Your task to perform on an android device: turn off wifi Image 0: 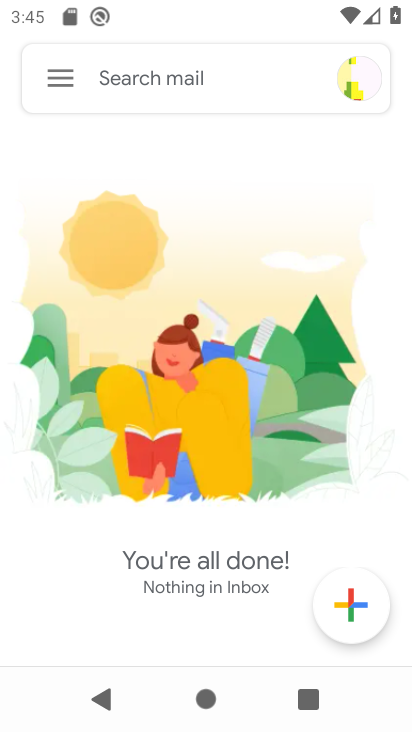
Step 0: press home button
Your task to perform on an android device: turn off wifi Image 1: 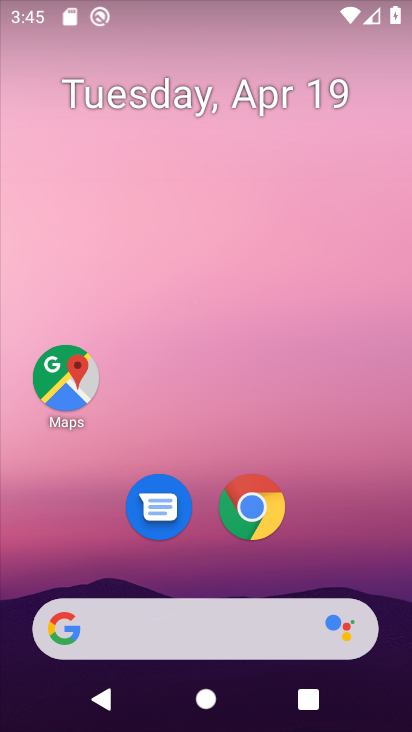
Step 1: drag from (309, 535) to (344, 93)
Your task to perform on an android device: turn off wifi Image 2: 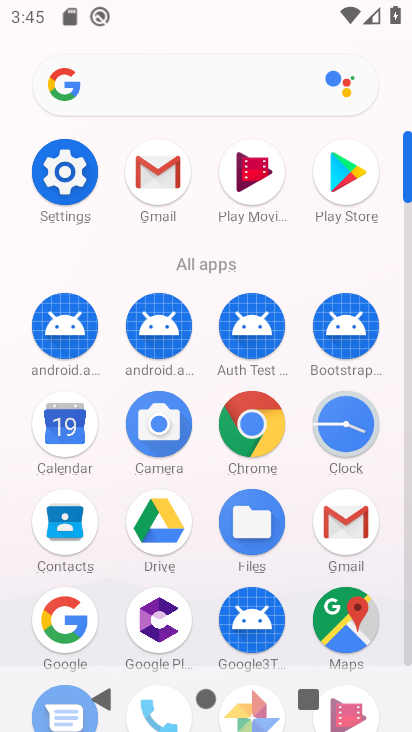
Step 2: click (80, 176)
Your task to perform on an android device: turn off wifi Image 3: 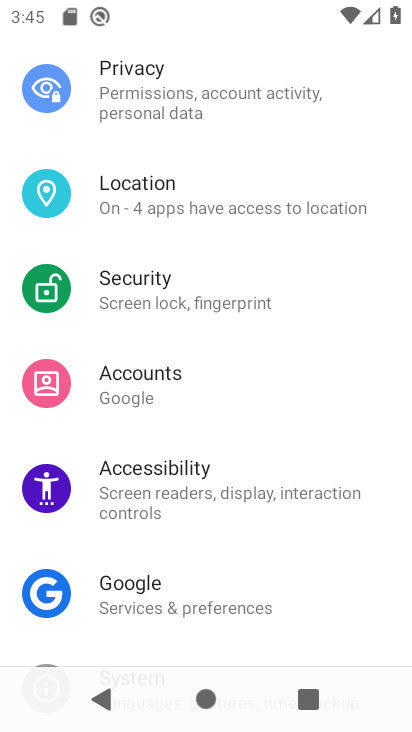
Step 3: drag from (159, 258) to (175, 341)
Your task to perform on an android device: turn off wifi Image 4: 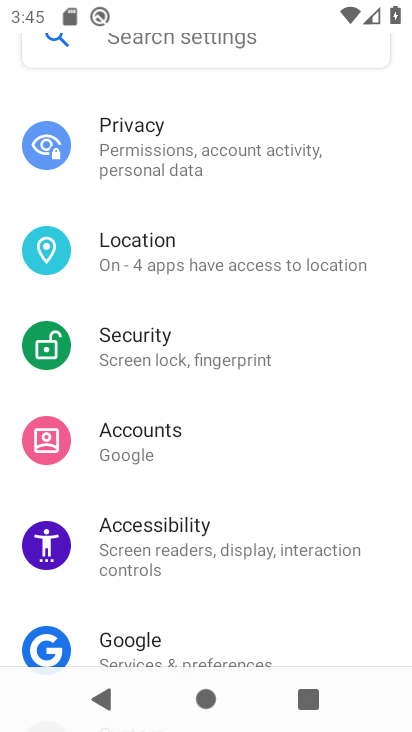
Step 4: drag from (169, 270) to (183, 345)
Your task to perform on an android device: turn off wifi Image 5: 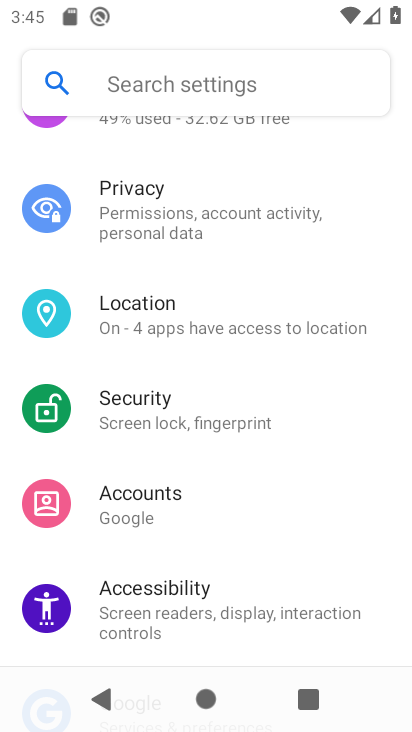
Step 5: drag from (178, 272) to (201, 350)
Your task to perform on an android device: turn off wifi Image 6: 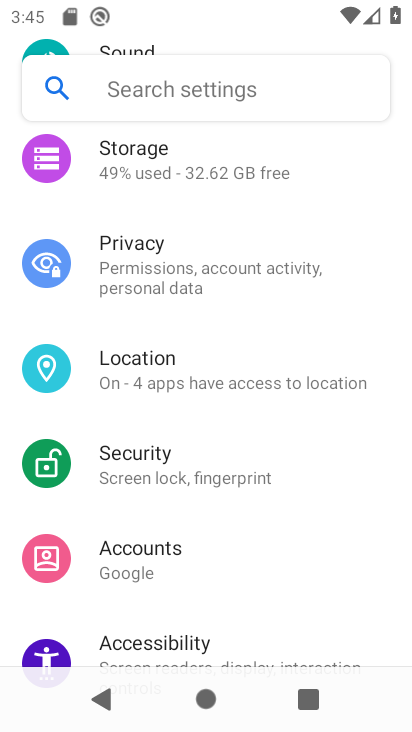
Step 6: drag from (196, 275) to (211, 341)
Your task to perform on an android device: turn off wifi Image 7: 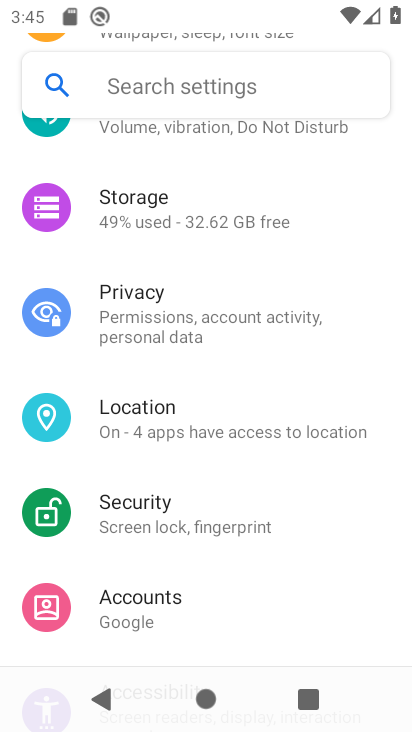
Step 7: drag from (221, 273) to (232, 344)
Your task to perform on an android device: turn off wifi Image 8: 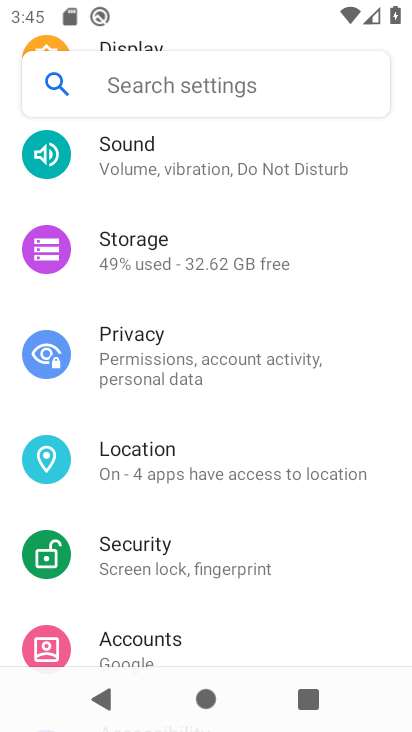
Step 8: drag from (252, 228) to (248, 298)
Your task to perform on an android device: turn off wifi Image 9: 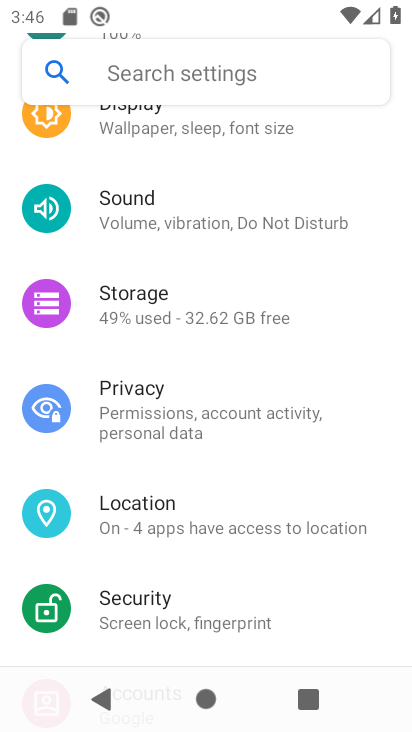
Step 9: drag from (249, 233) to (244, 359)
Your task to perform on an android device: turn off wifi Image 10: 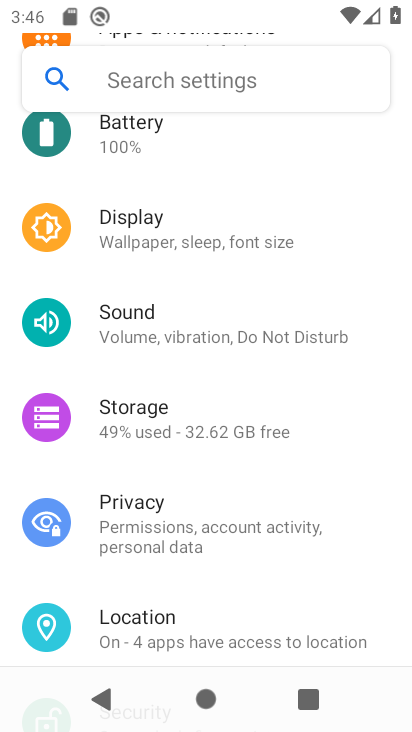
Step 10: drag from (241, 261) to (250, 345)
Your task to perform on an android device: turn off wifi Image 11: 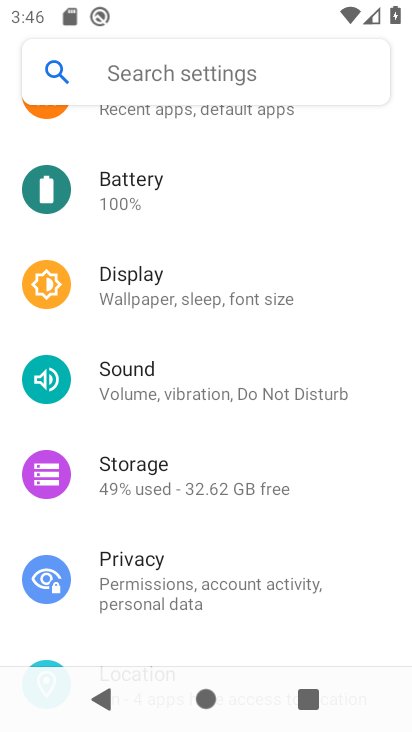
Step 11: drag from (244, 294) to (272, 407)
Your task to perform on an android device: turn off wifi Image 12: 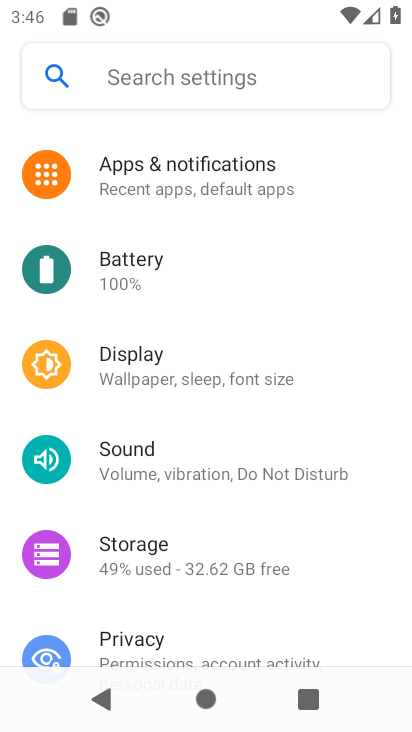
Step 12: drag from (269, 323) to (262, 444)
Your task to perform on an android device: turn off wifi Image 13: 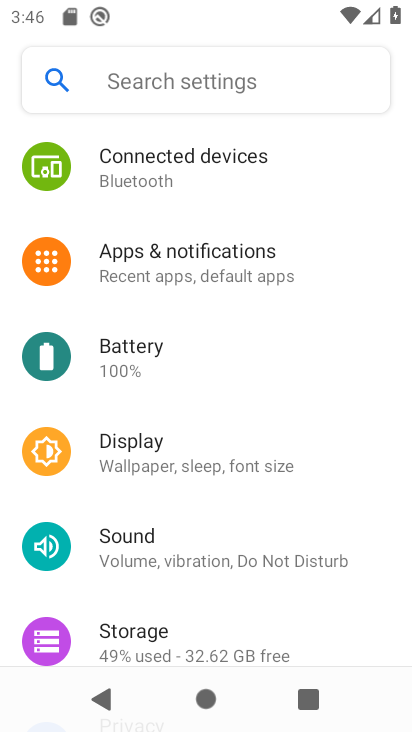
Step 13: drag from (284, 295) to (282, 422)
Your task to perform on an android device: turn off wifi Image 14: 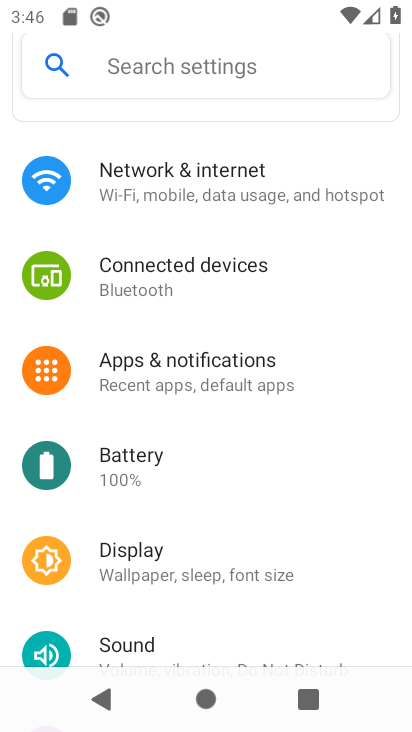
Step 14: drag from (298, 338) to (284, 428)
Your task to perform on an android device: turn off wifi Image 15: 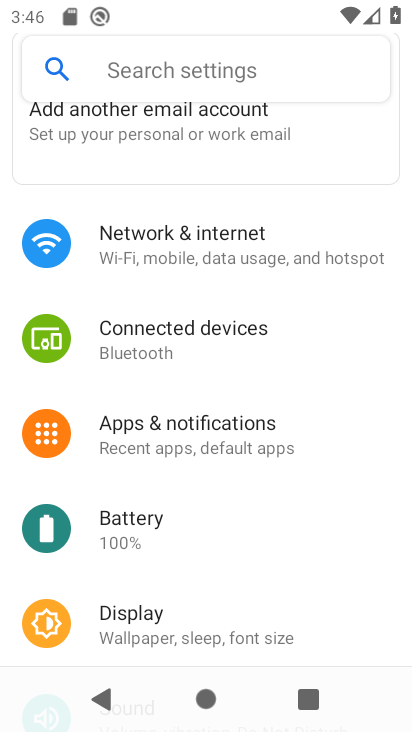
Step 15: click (257, 265)
Your task to perform on an android device: turn off wifi Image 16: 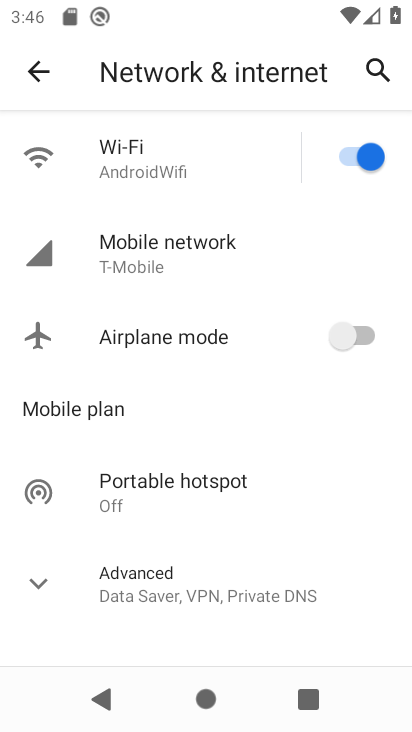
Step 16: click (347, 161)
Your task to perform on an android device: turn off wifi Image 17: 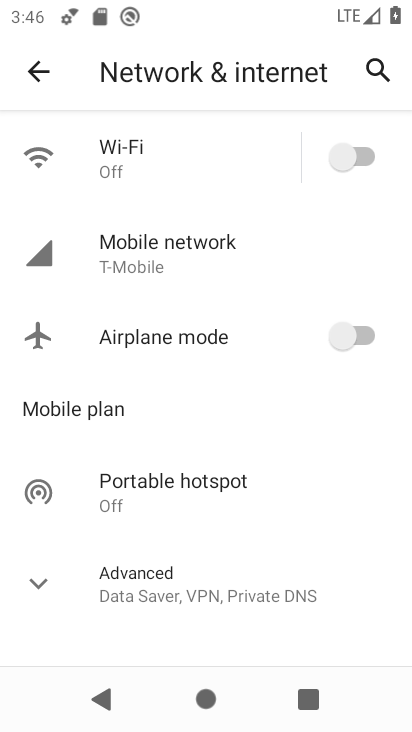
Step 17: task complete